Your task to perform on an android device: Go to ESPN.com Image 0: 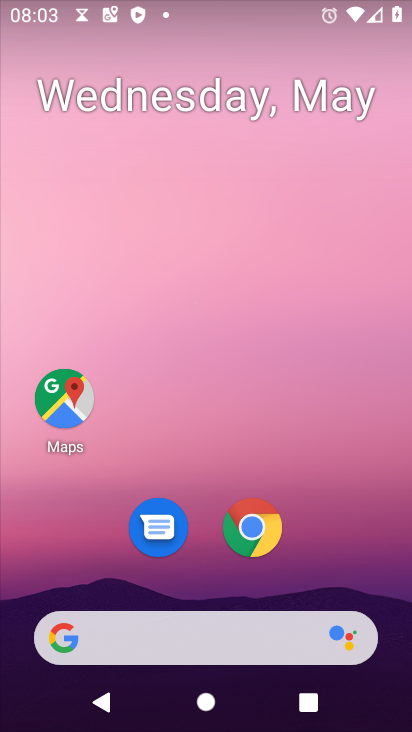
Step 0: click (262, 535)
Your task to perform on an android device: Go to ESPN.com Image 1: 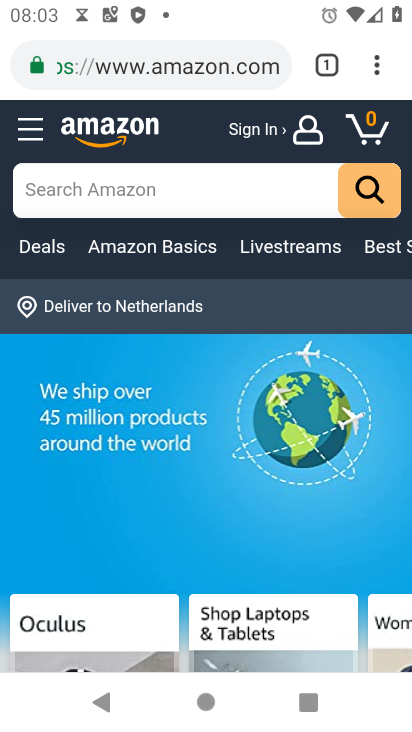
Step 1: click (378, 61)
Your task to perform on an android device: Go to ESPN.com Image 2: 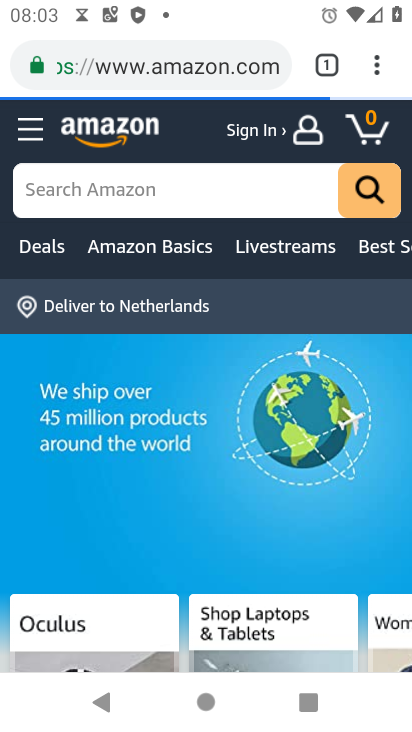
Step 2: drag from (378, 61) to (165, 142)
Your task to perform on an android device: Go to ESPN.com Image 3: 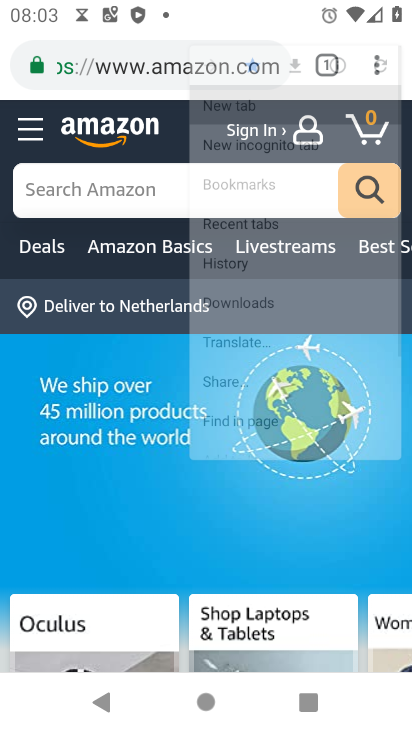
Step 3: click (159, 137)
Your task to perform on an android device: Go to ESPN.com Image 4: 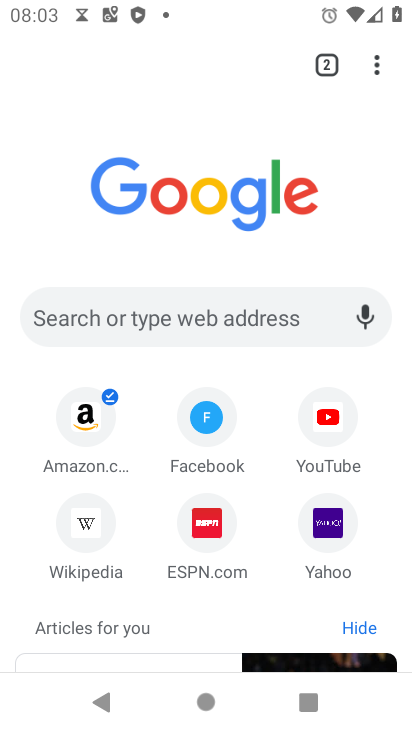
Step 4: click (205, 312)
Your task to perform on an android device: Go to ESPN.com Image 5: 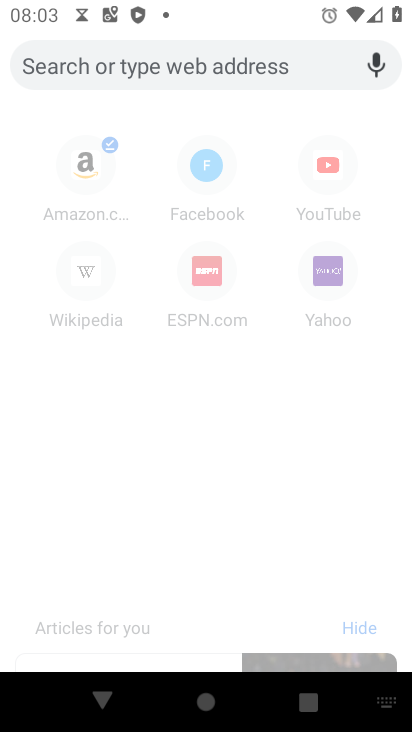
Step 5: type "ESPN.com"
Your task to perform on an android device: Go to ESPN.com Image 6: 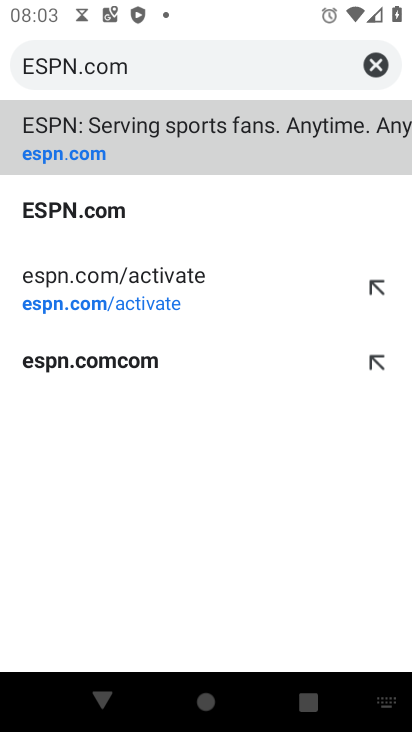
Step 6: click (62, 160)
Your task to perform on an android device: Go to ESPN.com Image 7: 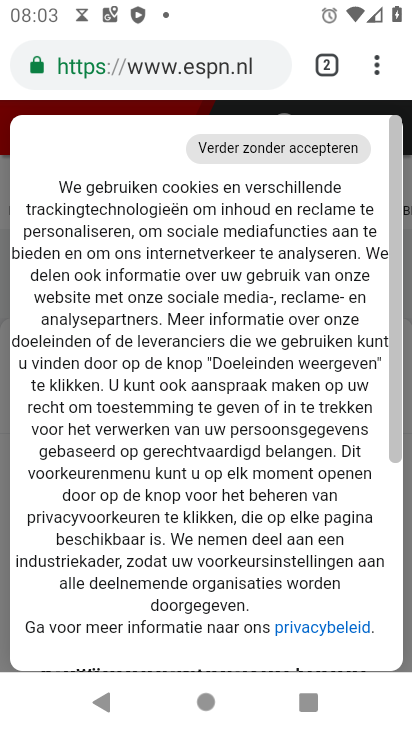
Step 7: task complete